Your task to perform on an android device: turn on improve location accuracy Image 0: 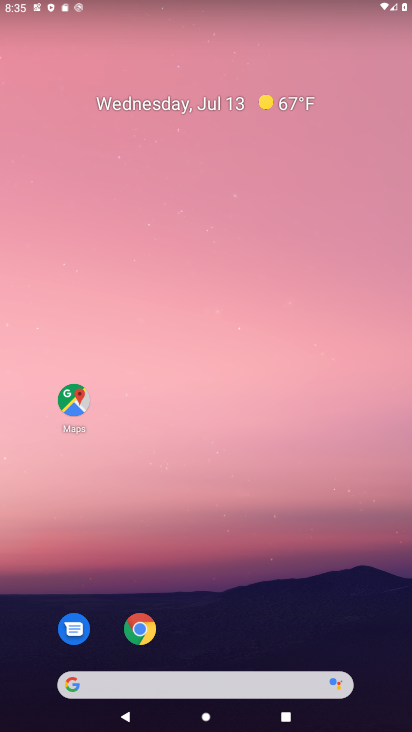
Step 0: drag from (241, 659) to (224, 113)
Your task to perform on an android device: turn on improve location accuracy Image 1: 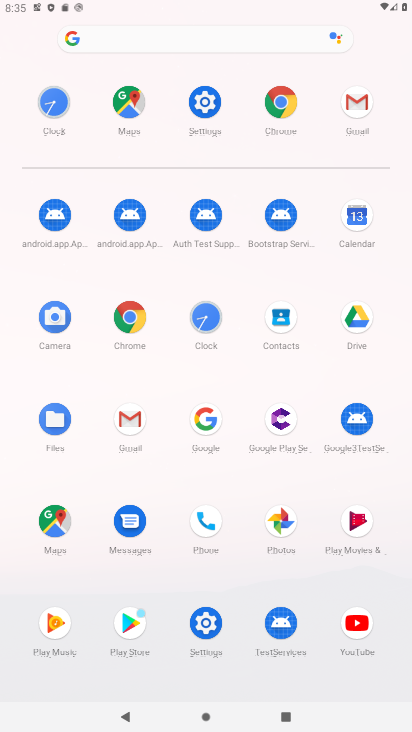
Step 1: click (204, 638)
Your task to perform on an android device: turn on improve location accuracy Image 2: 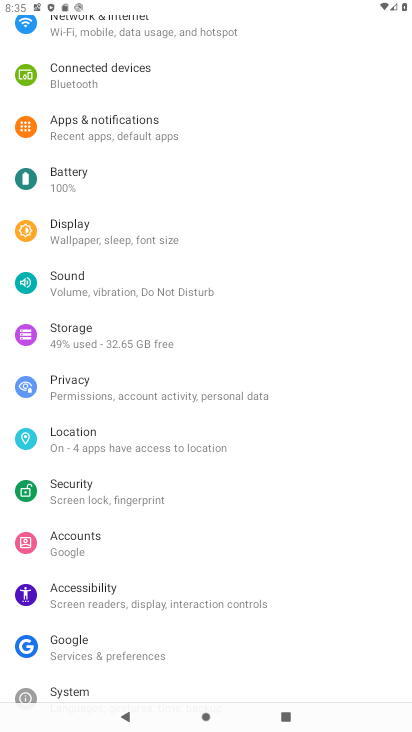
Step 2: click (103, 450)
Your task to perform on an android device: turn on improve location accuracy Image 3: 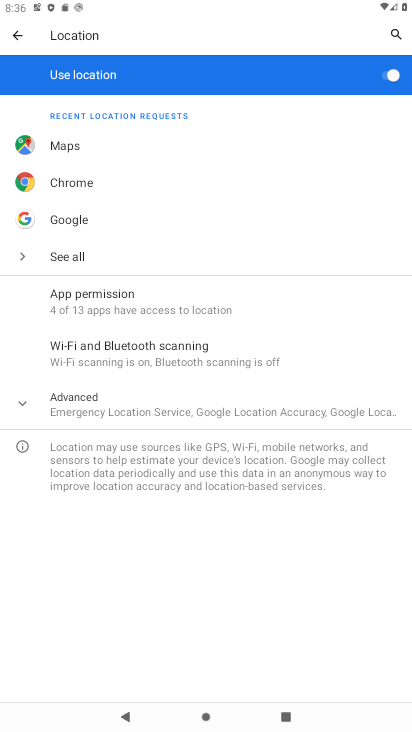
Step 3: click (144, 408)
Your task to perform on an android device: turn on improve location accuracy Image 4: 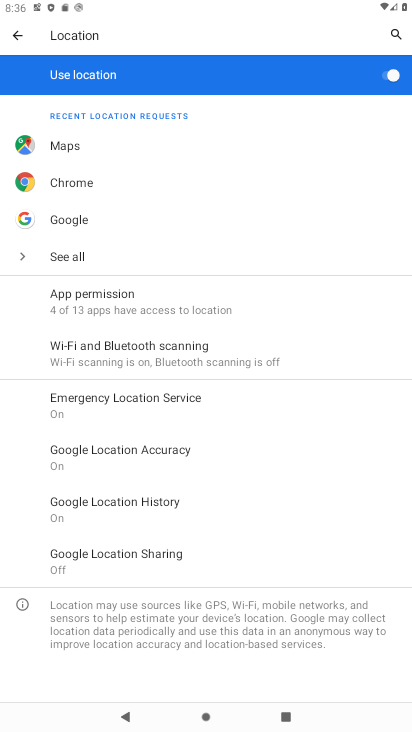
Step 4: click (157, 457)
Your task to perform on an android device: turn on improve location accuracy Image 5: 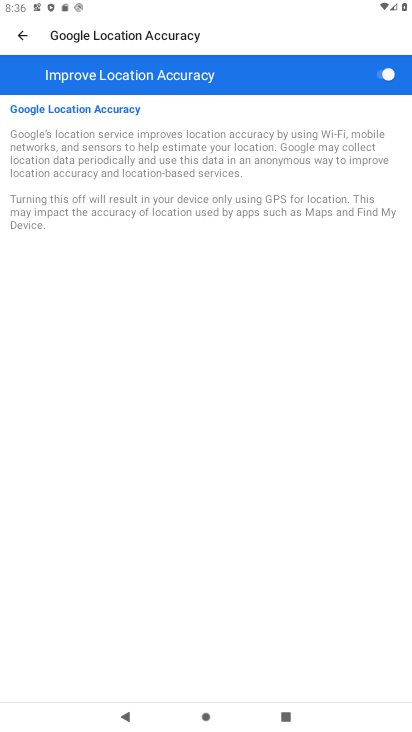
Step 5: task complete